Your task to perform on an android device: check google app version Image 0: 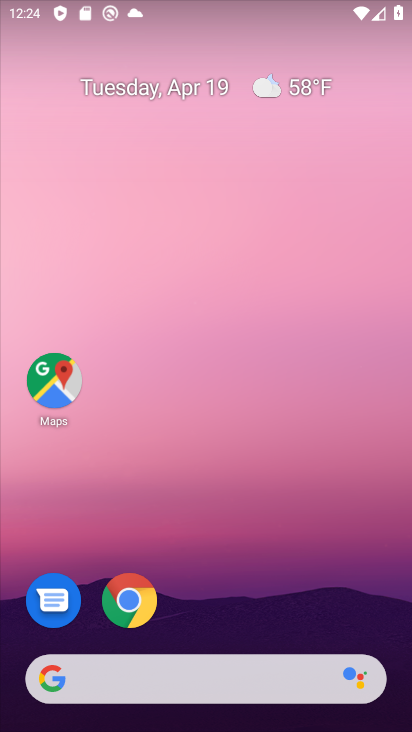
Step 0: drag from (187, 652) to (126, 246)
Your task to perform on an android device: check google app version Image 1: 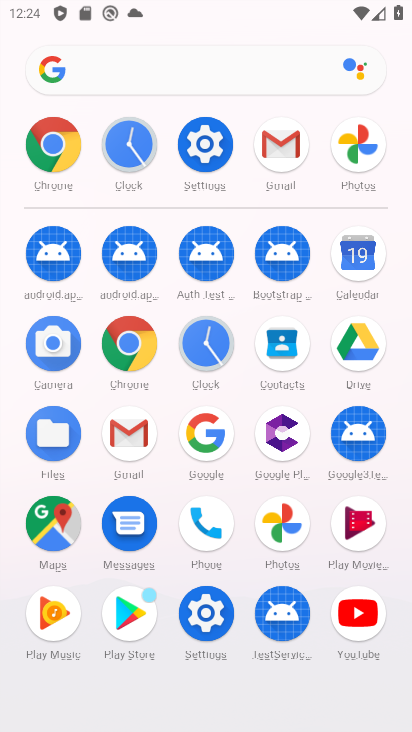
Step 1: click (40, 158)
Your task to perform on an android device: check google app version Image 2: 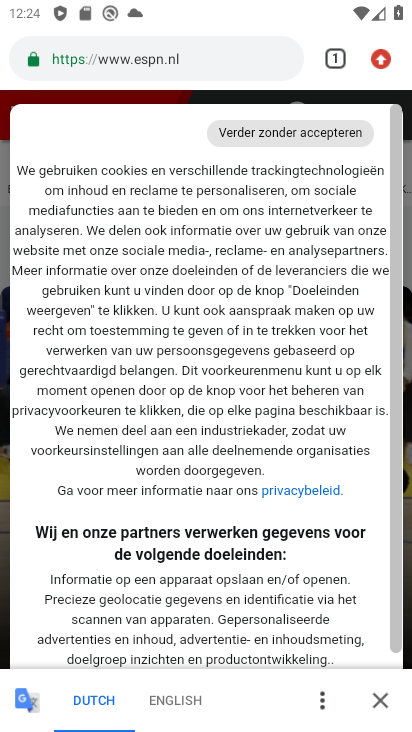
Step 2: click (371, 53)
Your task to perform on an android device: check google app version Image 3: 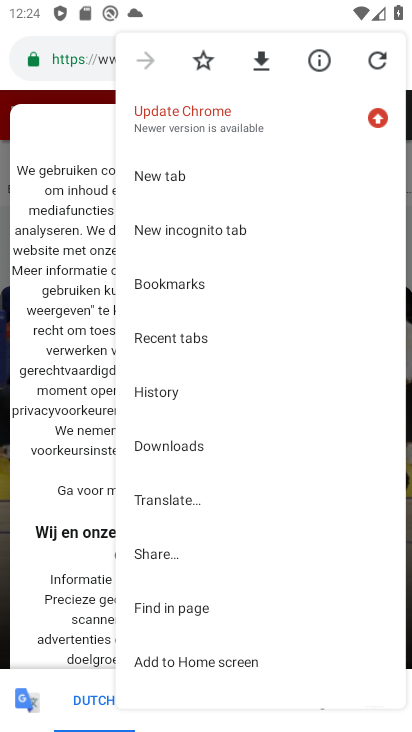
Step 3: drag from (231, 601) to (241, 218)
Your task to perform on an android device: check google app version Image 4: 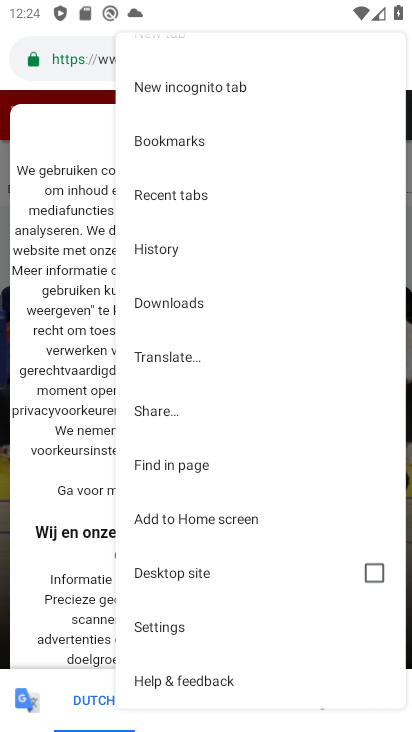
Step 4: click (175, 631)
Your task to perform on an android device: check google app version Image 5: 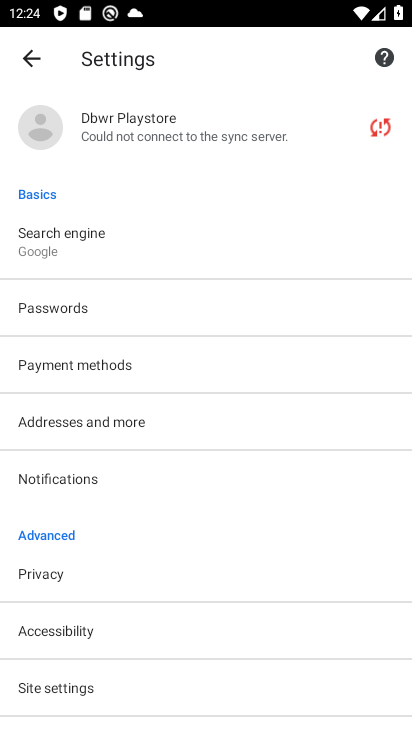
Step 5: drag from (175, 631) to (135, 278)
Your task to perform on an android device: check google app version Image 6: 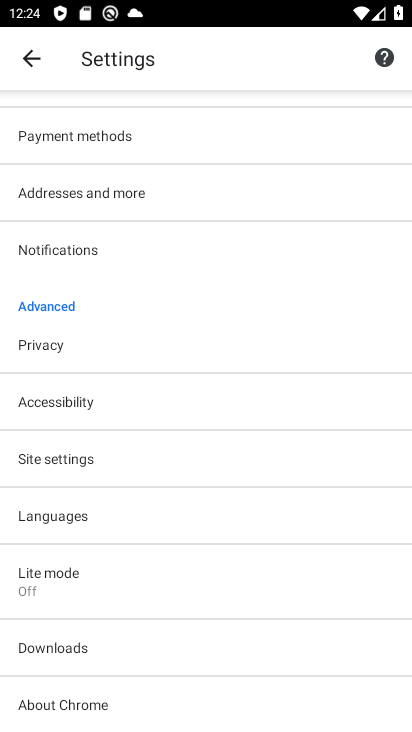
Step 6: click (71, 707)
Your task to perform on an android device: check google app version Image 7: 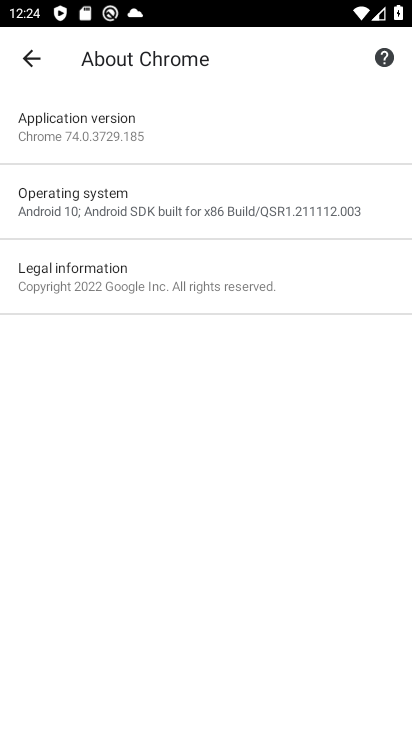
Step 7: click (75, 118)
Your task to perform on an android device: check google app version Image 8: 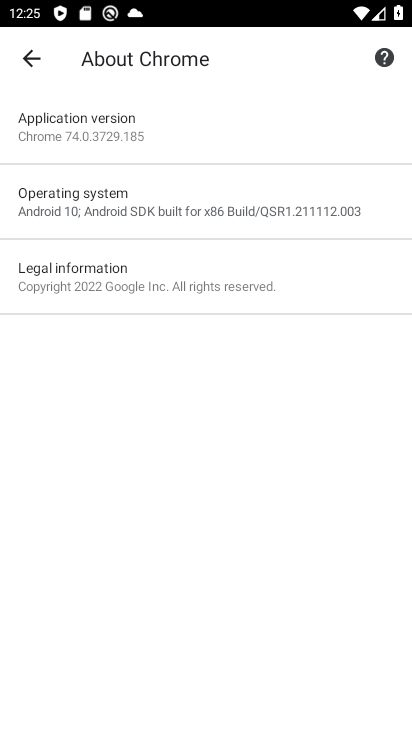
Step 8: task complete